Your task to perform on an android device: delete location history Image 0: 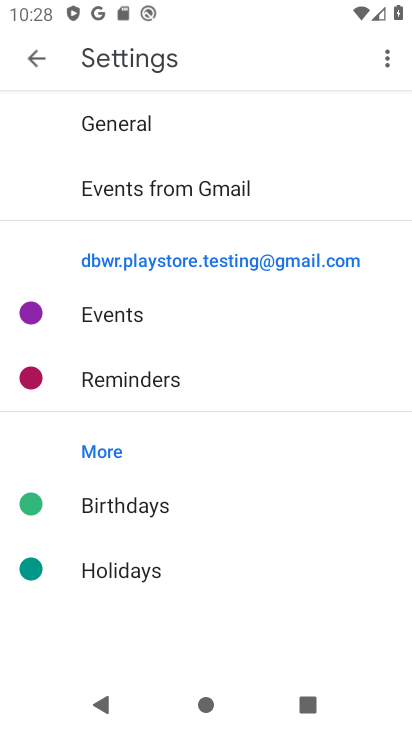
Step 0: press back button
Your task to perform on an android device: delete location history Image 1: 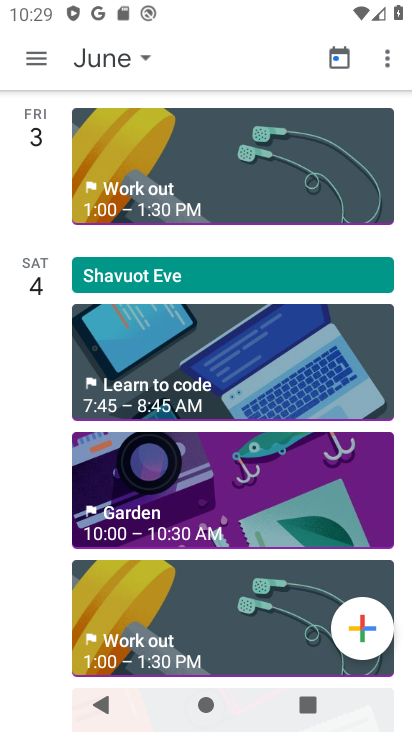
Step 1: press home button
Your task to perform on an android device: delete location history Image 2: 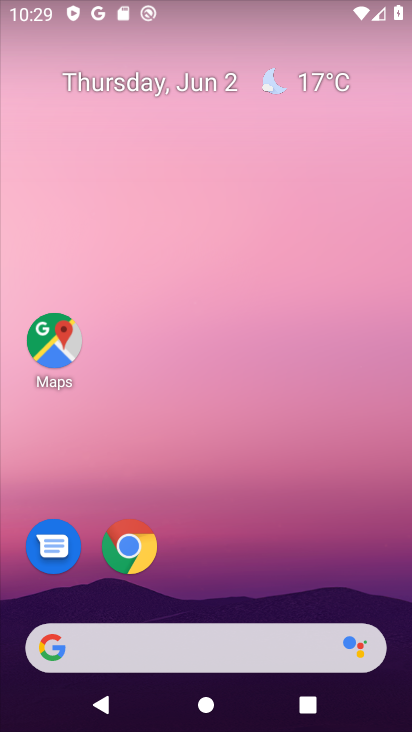
Step 2: drag from (242, 580) to (272, 29)
Your task to perform on an android device: delete location history Image 3: 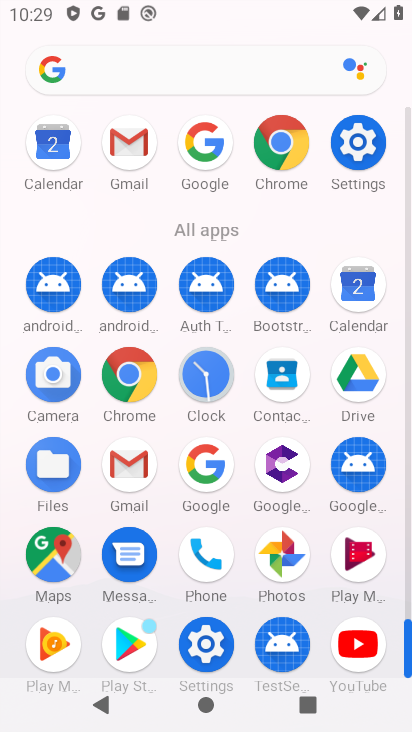
Step 3: click (354, 140)
Your task to perform on an android device: delete location history Image 4: 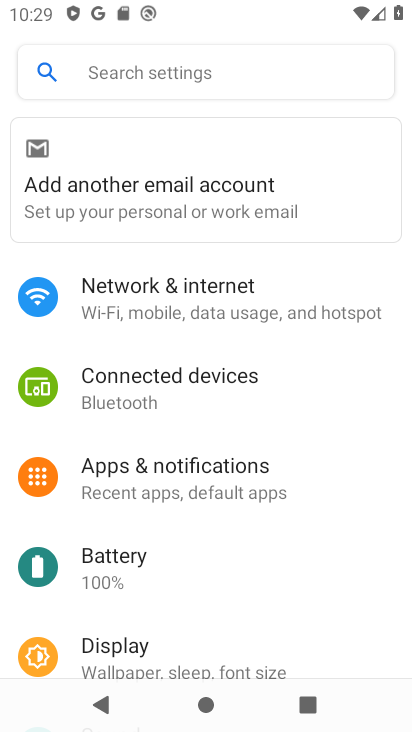
Step 4: drag from (273, 589) to (307, 140)
Your task to perform on an android device: delete location history Image 5: 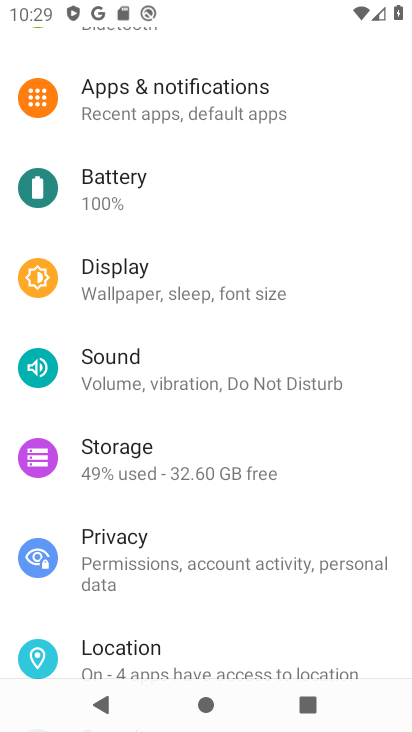
Step 5: click (160, 638)
Your task to perform on an android device: delete location history Image 6: 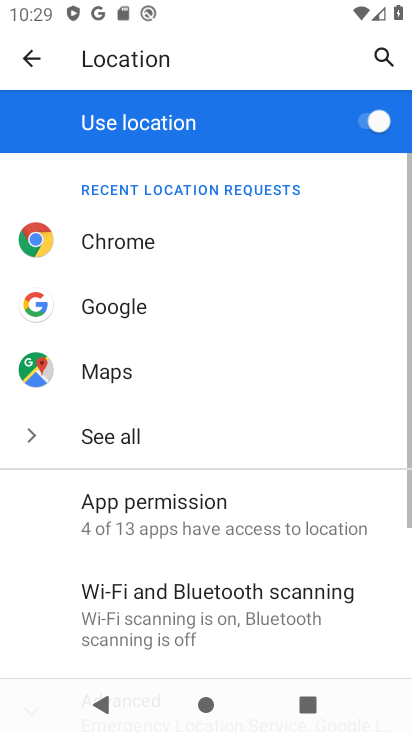
Step 6: drag from (357, 589) to (304, 255)
Your task to perform on an android device: delete location history Image 7: 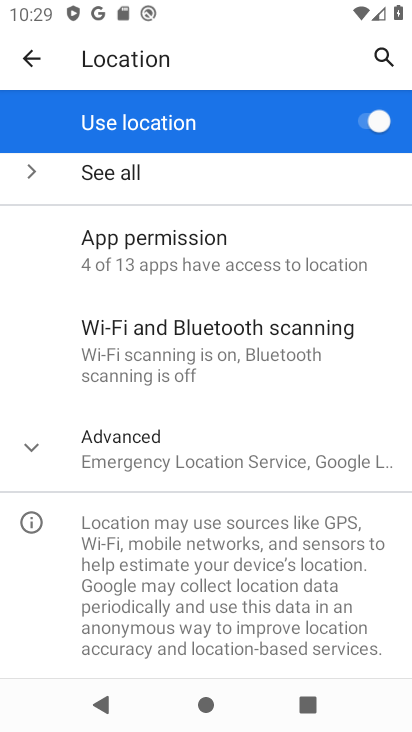
Step 7: click (58, 451)
Your task to perform on an android device: delete location history Image 8: 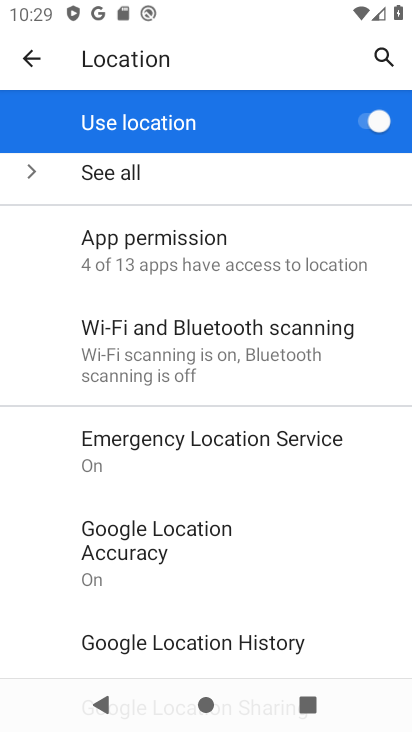
Step 8: click (287, 631)
Your task to perform on an android device: delete location history Image 9: 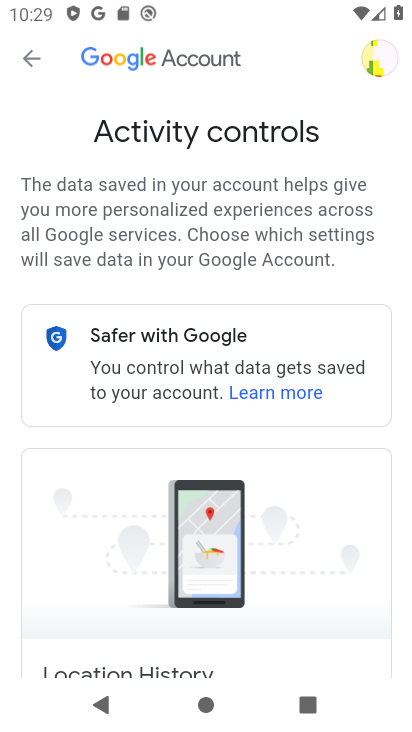
Step 9: drag from (317, 386) to (295, 218)
Your task to perform on an android device: delete location history Image 10: 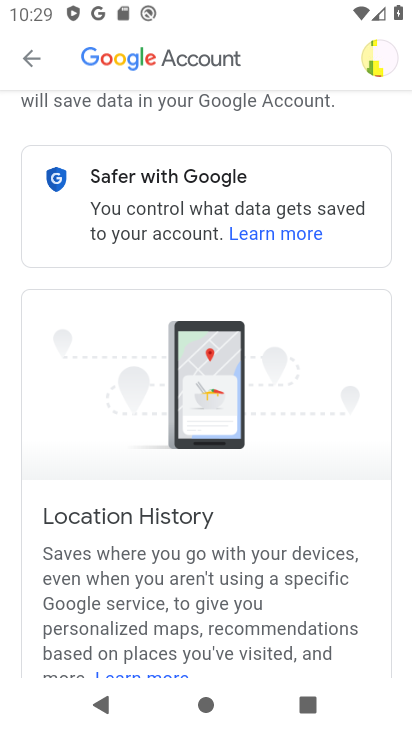
Step 10: drag from (324, 341) to (316, 217)
Your task to perform on an android device: delete location history Image 11: 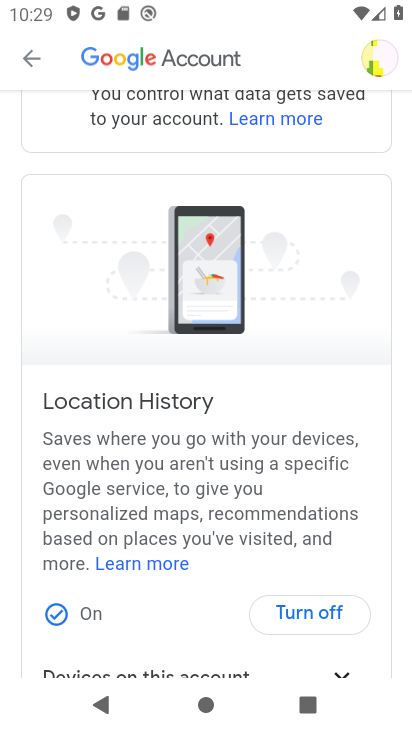
Step 11: drag from (344, 205) to (324, 512)
Your task to perform on an android device: delete location history Image 12: 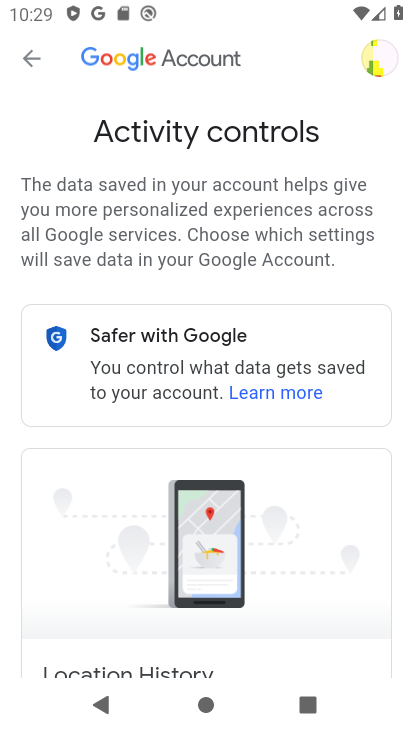
Step 12: drag from (319, 234) to (317, 465)
Your task to perform on an android device: delete location history Image 13: 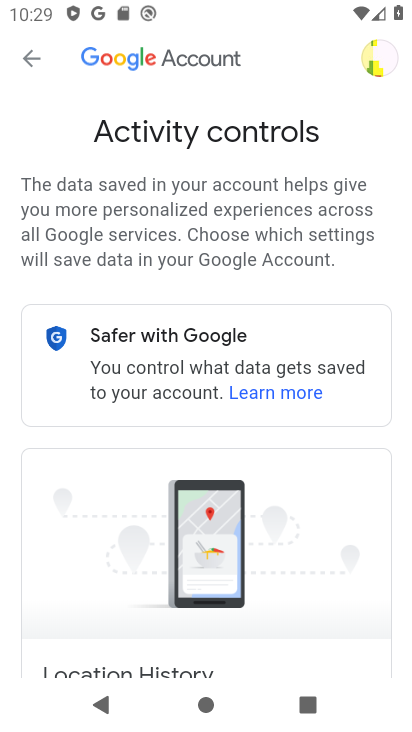
Step 13: drag from (309, 511) to (317, 156)
Your task to perform on an android device: delete location history Image 14: 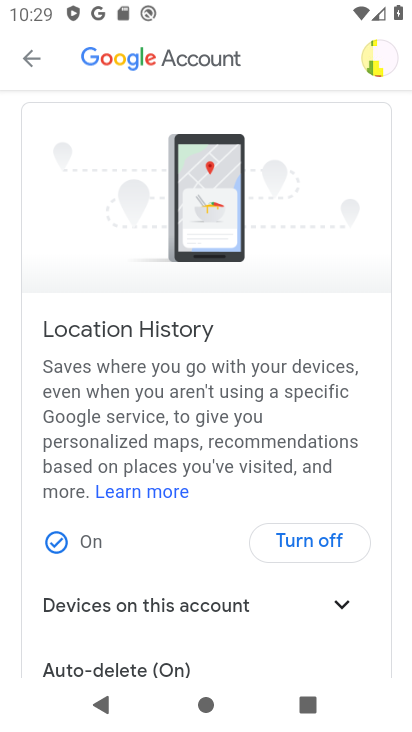
Step 14: drag from (242, 542) to (291, 128)
Your task to perform on an android device: delete location history Image 15: 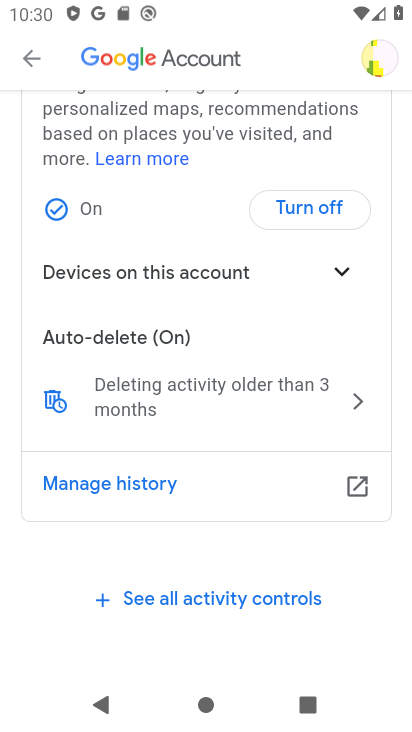
Step 15: click (115, 394)
Your task to perform on an android device: delete location history Image 16: 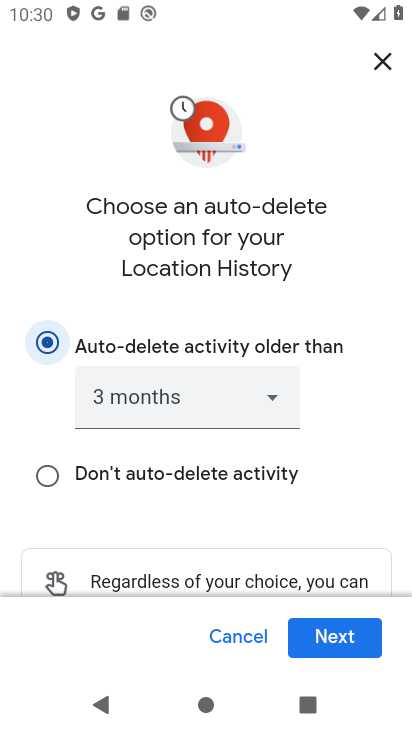
Step 16: click (348, 634)
Your task to perform on an android device: delete location history Image 17: 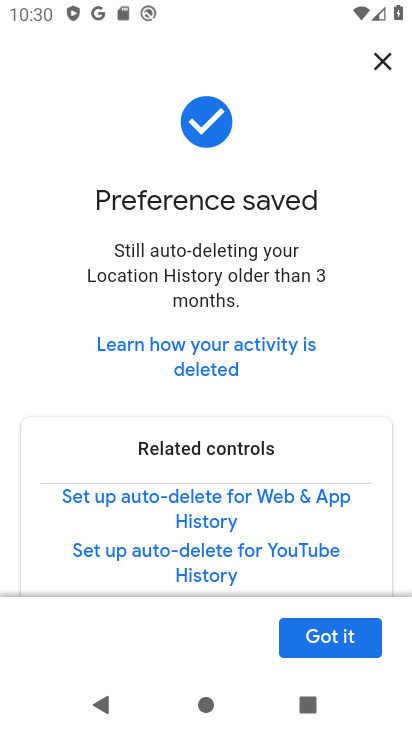
Step 17: task complete